Your task to perform on an android device: Open calendar and show me the second week of next month Image 0: 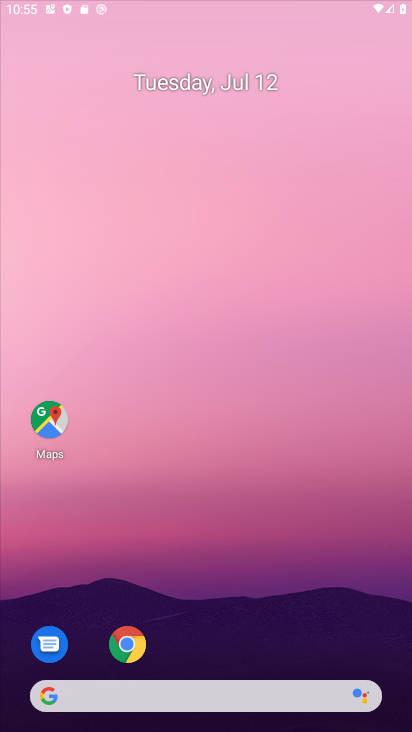
Step 0: press home button
Your task to perform on an android device: Open calendar and show me the second week of next month Image 1: 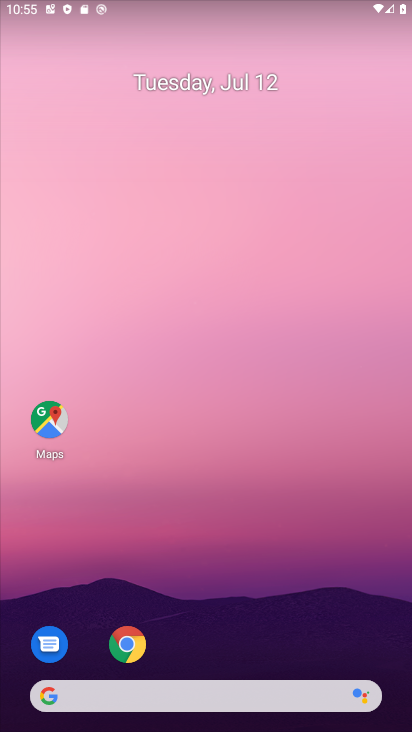
Step 1: drag from (209, 659) to (238, 50)
Your task to perform on an android device: Open calendar and show me the second week of next month Image 2: 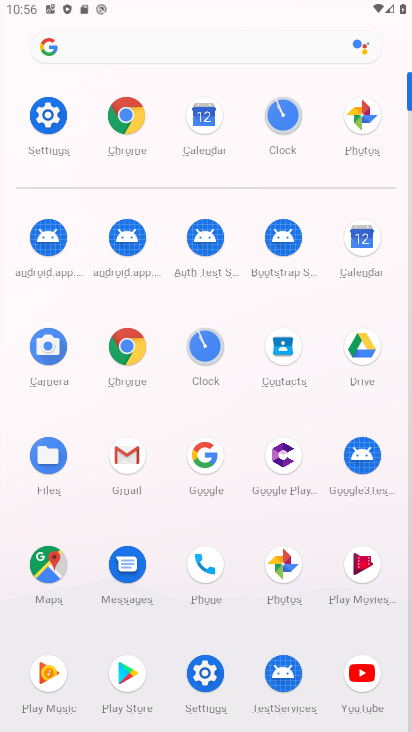
Step 2: click (357, 244)
Your task to perform on an android device: Open calendar and show me the second week of next month Image 3: 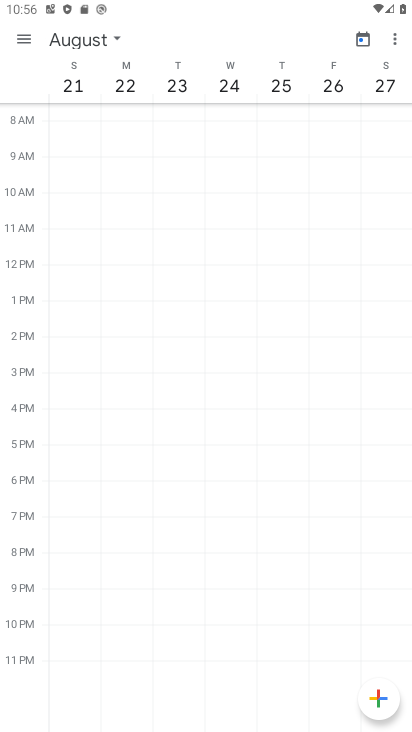
Step 3: drag from (72, 82) to (398, 93)
Your task to perform on an android device: Open calendar and show me the second week of next month Image 4: 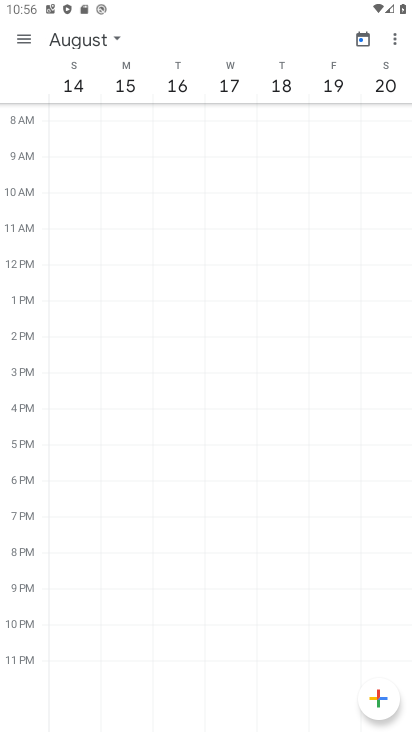
Step 4: drag from (74, 78) to (387, 82)
Your task to perform on an android device: Open calendar and show me the second week of next month Image 5: 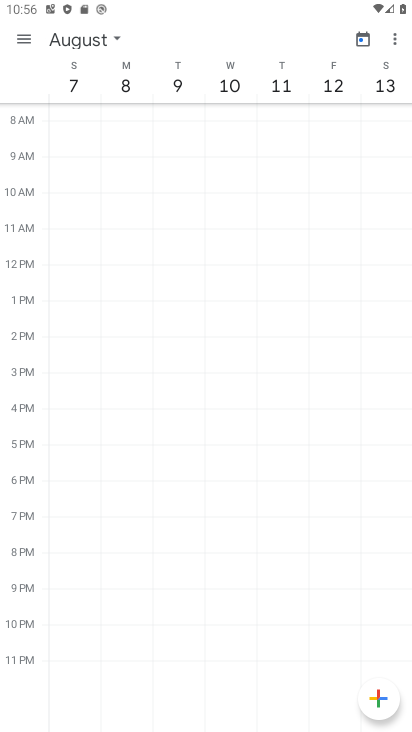
Step 5: click (71, 78)
Your task to perform on an android device: Open calendar and show me the second week of next month Image 6: 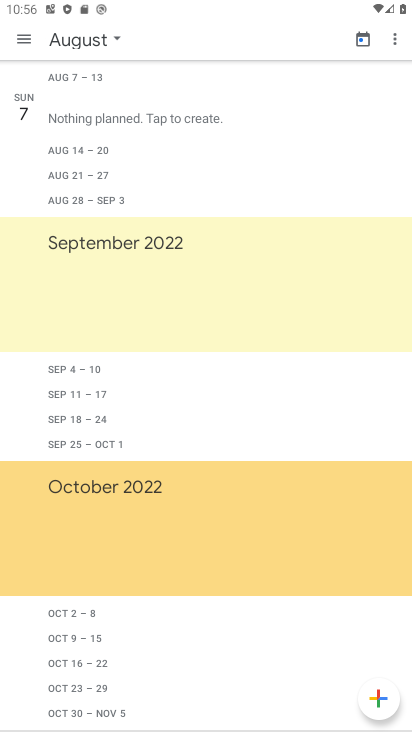
Step 6: task complete